Your task to perform on an android device: Open Google Chrome and open the bookmarks view Image 0: 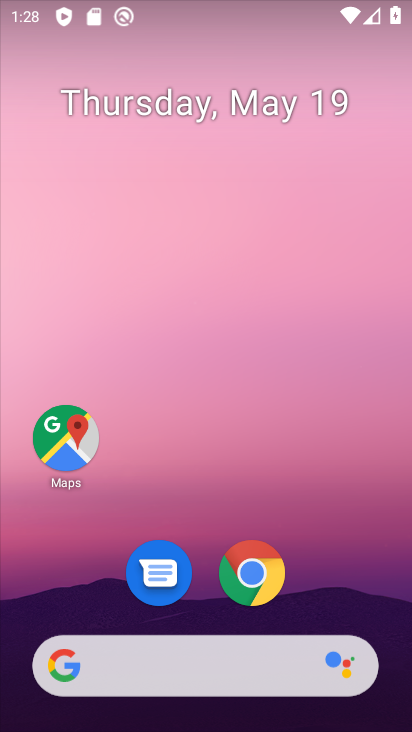
Step 0: click (246, 573)
Your task to perform on an android device: Open Google Chrome and open the bookmarks view Image 1: 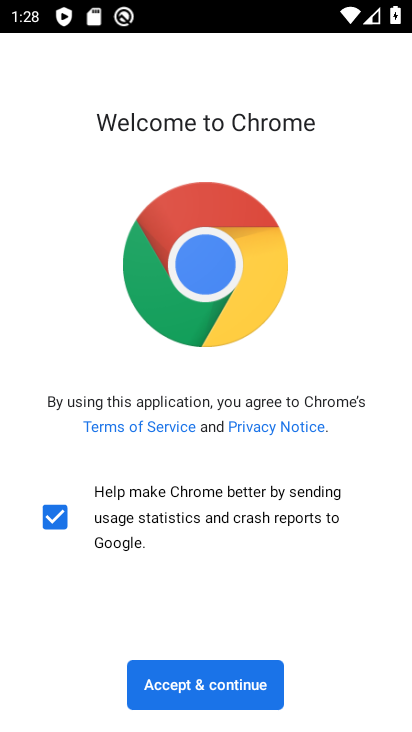
Step 1: click (196, 672)
Your task to perform on an android device: Open Google Chrome and open the bookmarks view Image 2: 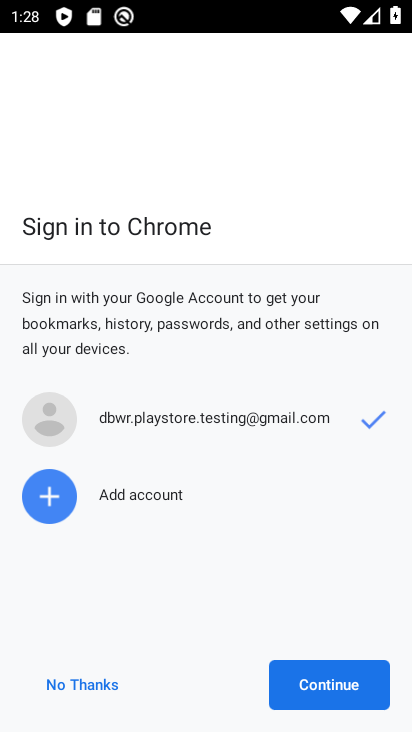
Step 2: click (333, 684)
Your task to perform on an android device: Open Google Chrome and open the bookmarks view Image 3: 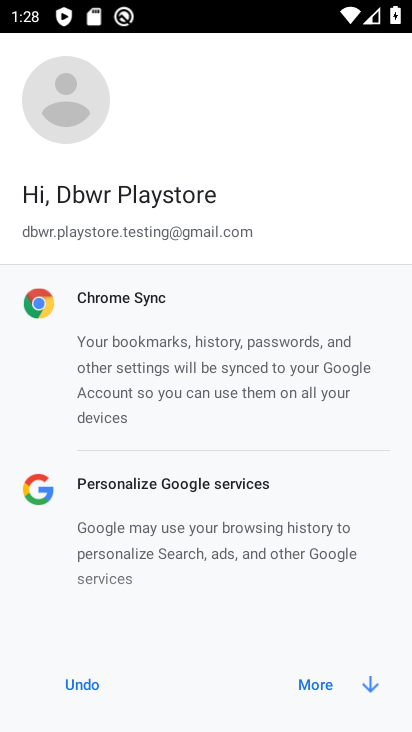
Step 3: click (318, 677)
Your task to perform on an android device: Open Google Chrome and open the bookmarks view Image 4: 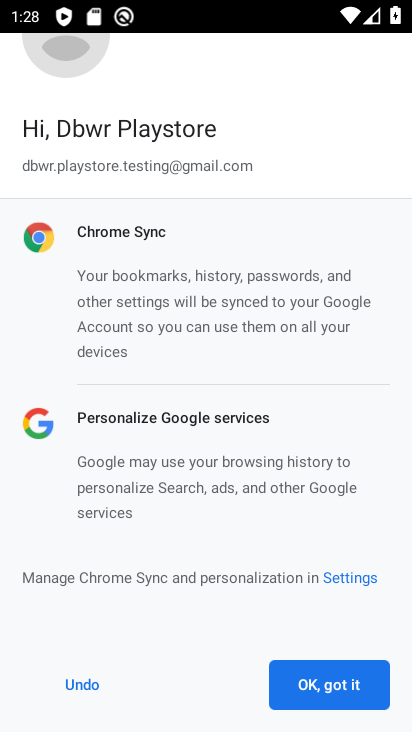
Step 4: click (332, 683)
Your task to perform on an android device: Open Google Chrome and open the bookmarks view Image 5: 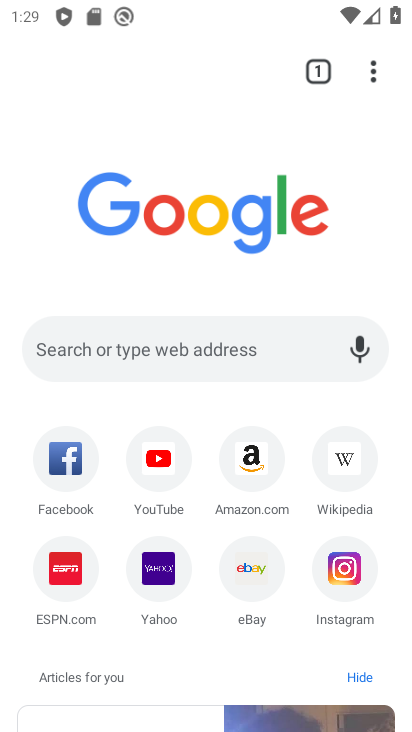
Step 5: click (371, 76)
Your task to perform on an android device: Open Google Chrome and open the bookmarks view Image 6: 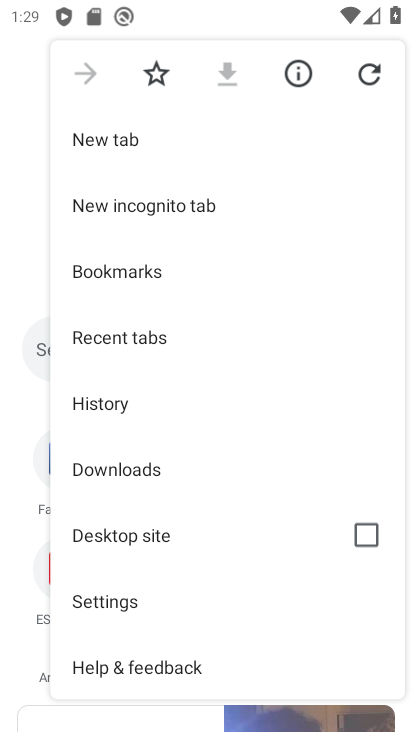
Step 6: click (119, 260)
Your task to perform on an android device: Open Google Chrome and open the bookmarks view Image 7: 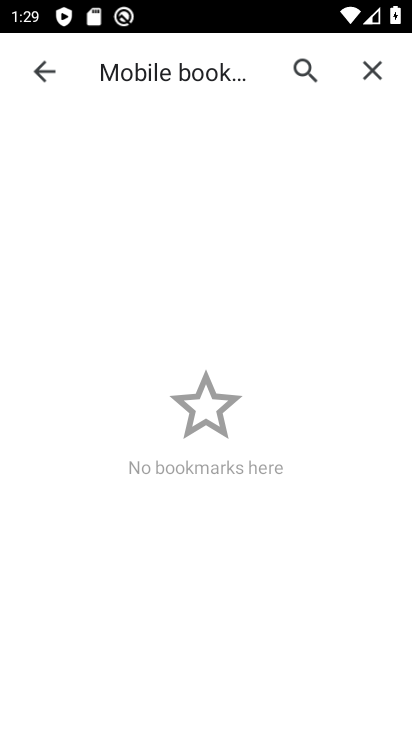
Step 7: task complete